Your task to perform on an android device: Open settings Image 0: 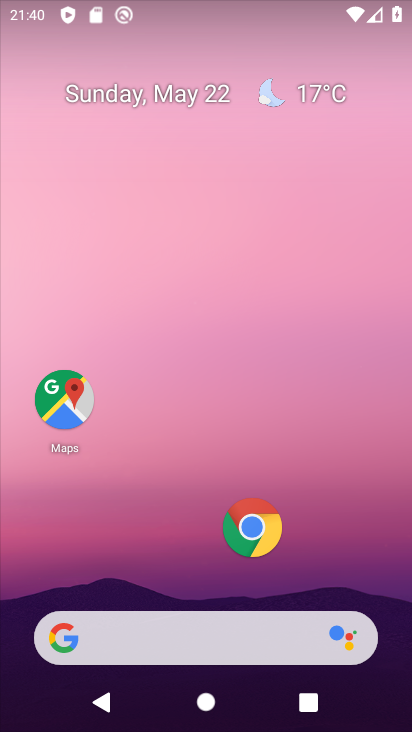
Step 0: drag from (165, 536) to (167, 33)
Your task to perform on an android device: Open settings Image 1: 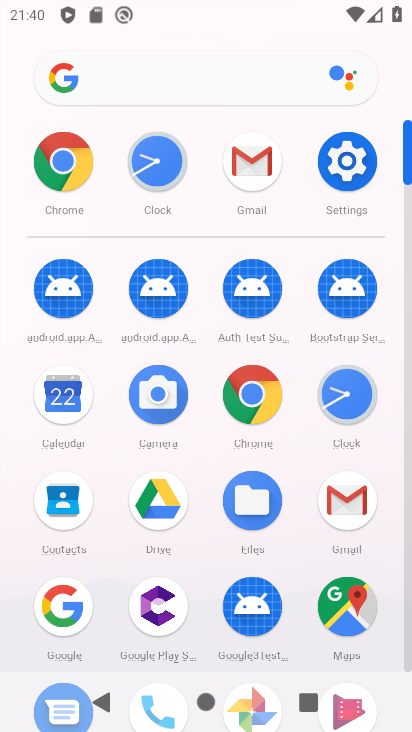
Step 1: click (349, 161)
Your task to perform on an android device: Open settings Image 2: 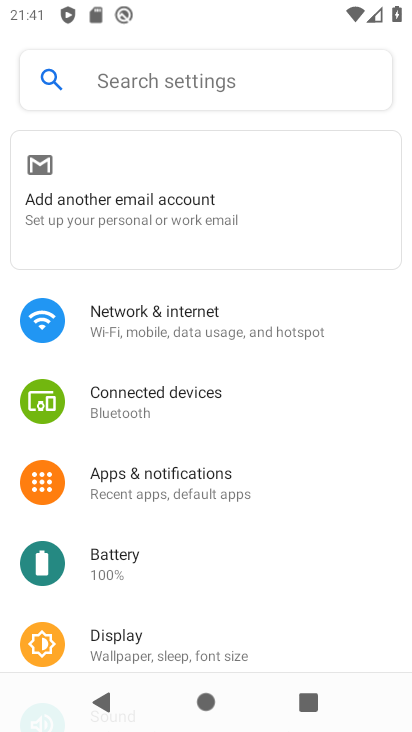
Step 2: task complete